Your task to perform on an android device: Go to sound settings Image 0: 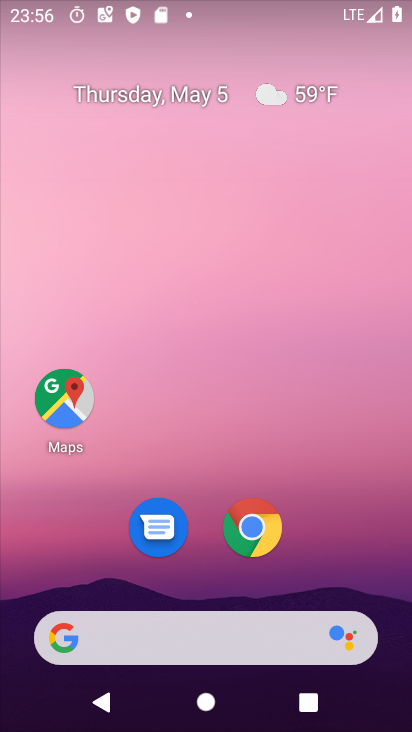
Step 0: drag from (210, 597) to (235, 99)
Your task to perform on an android device: Go to sound settings Image 1: 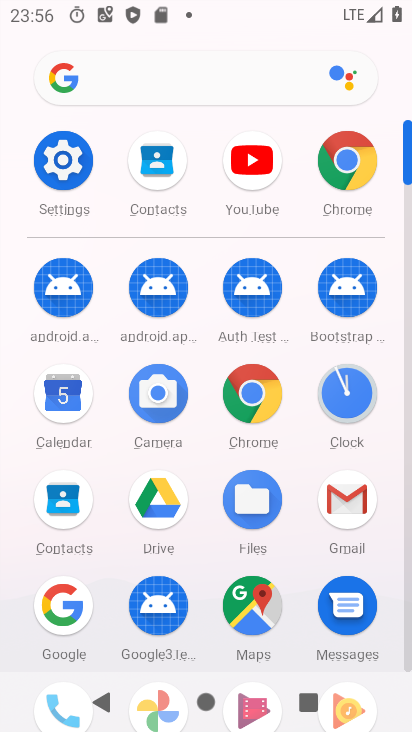
Step 1: click (84, 179)
Your task to perform on an android device: Go to sound settings Image 2: 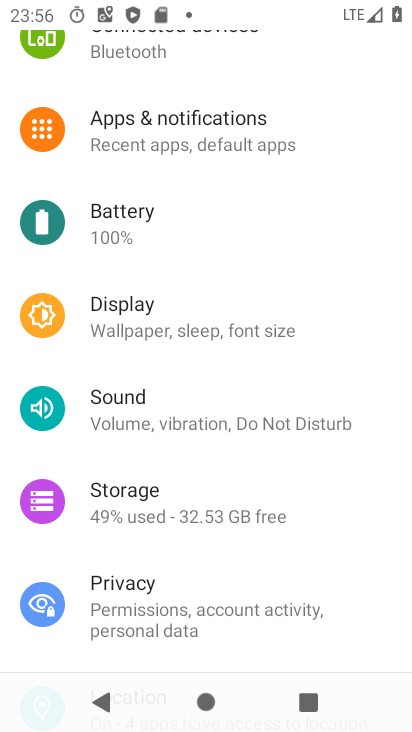
Step 2: click (155, 408)
Your task to perform on an android device: Go to sound settings Image 3: 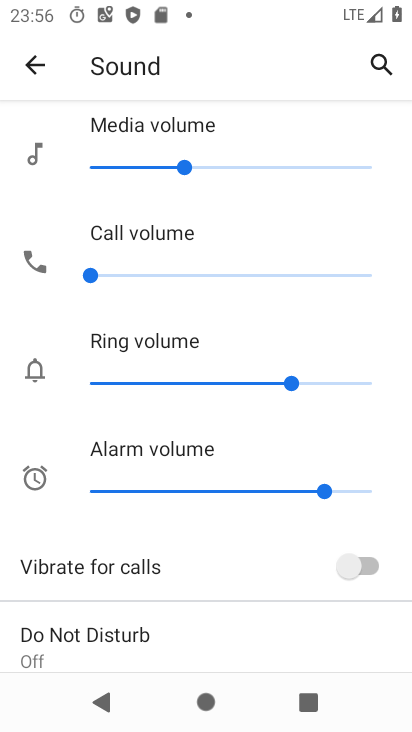
Step 3: task complete